Your task to perform on an android device: turn on javascript in the chrome app Image 0: 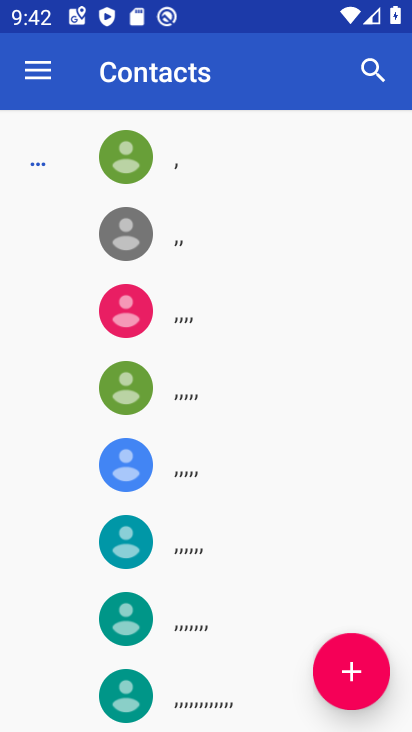
Step 0: press home button
Your task to perform on an android device: turn on javascript in the chrome app Image 1: 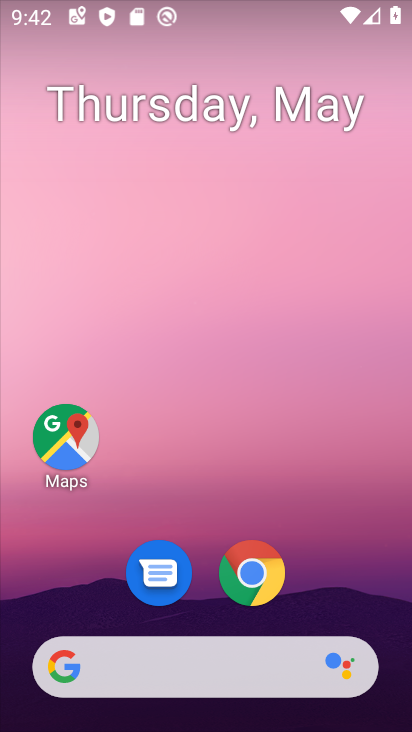
Step 1: click (246, 574)
Your task to perform on an android device: turn on javascript in the chrome app Image 2: 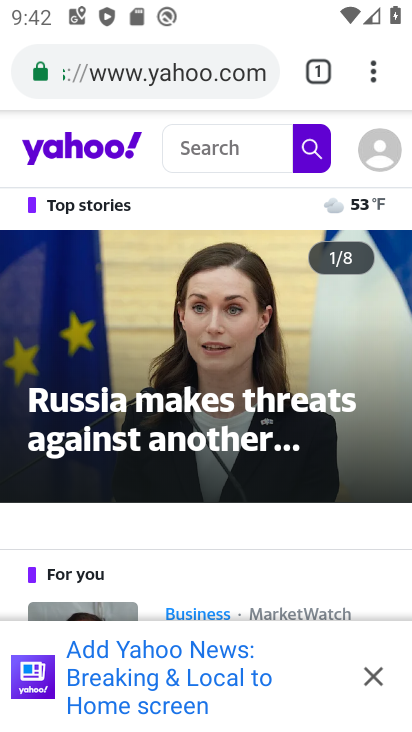
Step 2: click (375, 71)
Your task to perform on an android device: turn on javascript in the chrome app Image 3: 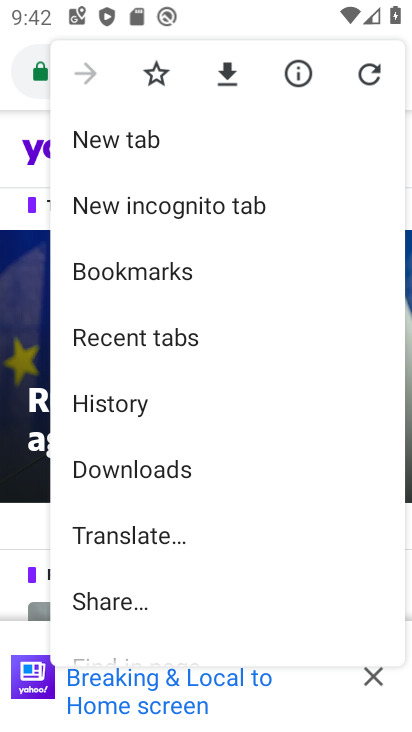
Step 3: drag from (248, 557) to (230, 154)
Your task to perform on an android device: turn on javascript in the chrome app Image 4: 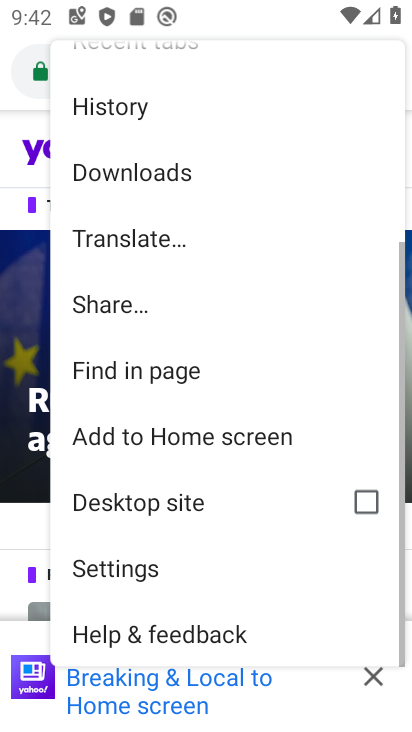
Step 4: click (153, 570)
Your task to perform on an android device: turn on javascript in the chrome app Image 5: 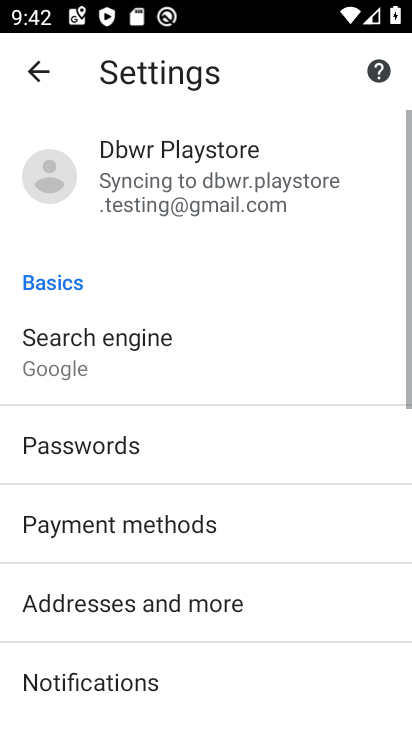
Step 5: drag from (159, 566) to (203, 260)
Your task to perform on an android device: turn on javascript in the chrome app Image 6: 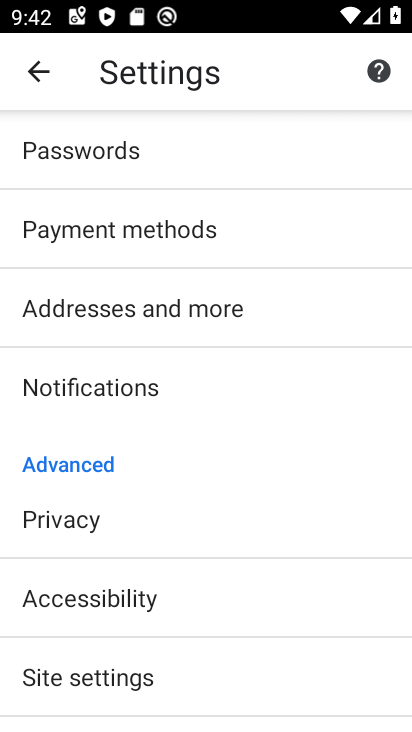
Step 6: drag from (200, 586) to (202, 293)
Your task to perform on an android device: turn on javascript in the chrome app Image 7: 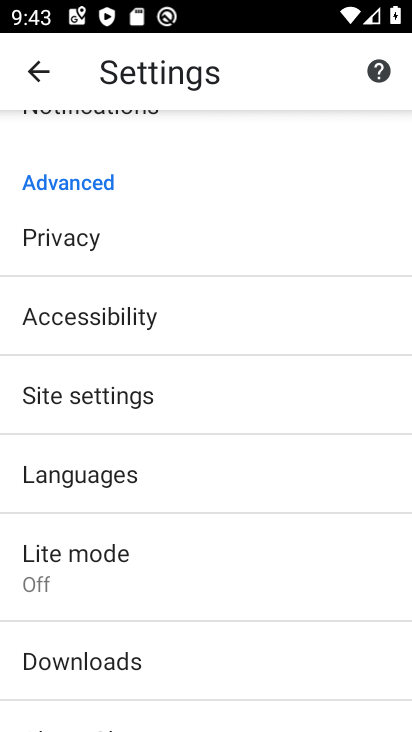
Step 7: drag from (133, 484) to (215, 362)
Your task to perform on an android device: turn on javascript in the chrome app Image 8: 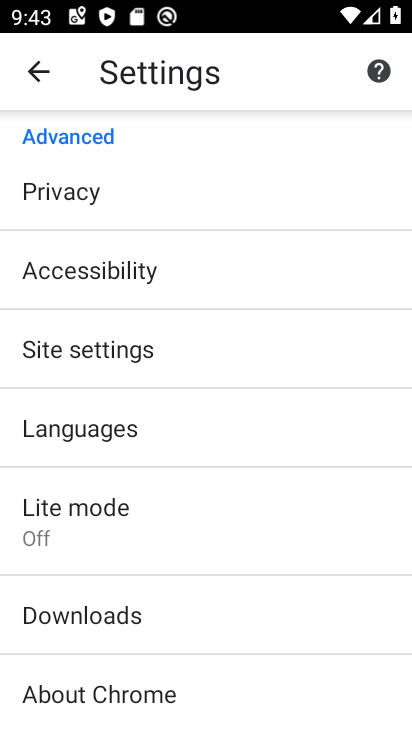
Step 8: click (179, 340)
Your task to perform on an android device: turn on javascript in the chrome app Image 9: 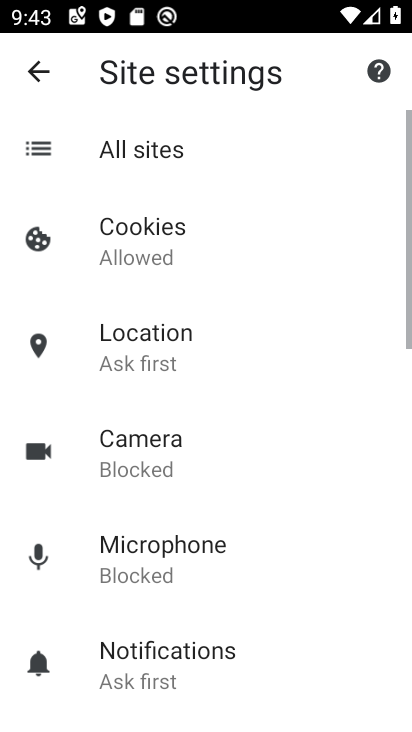
Step 9: drag from (155, 533) to (174, 243)
Your task to perform on an android device: turn on javascript in the chrome app Image 10: 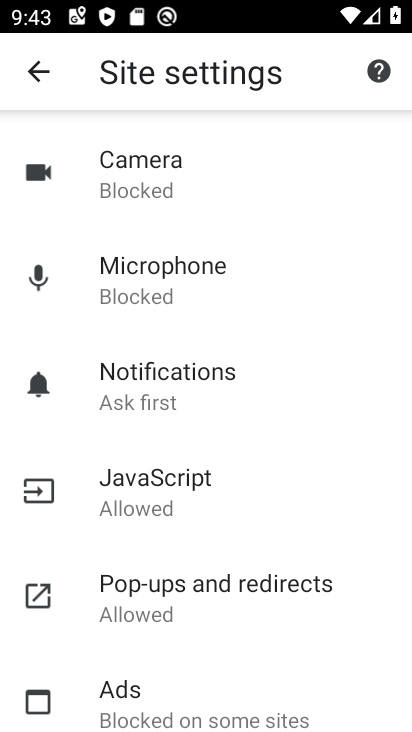
Step 10: click (169, 518)
Your task to perform on an android device: turn on javascript in the chrome app Image 11: 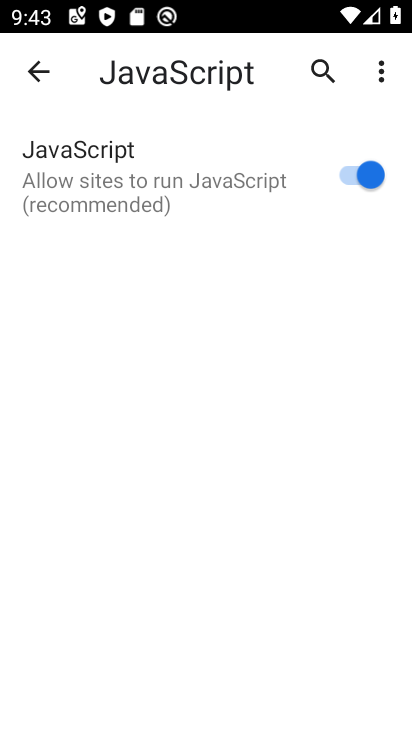
Step 11: task complete